Your task to perform on an android device: turn on the 24-hour format for clock Image 0: 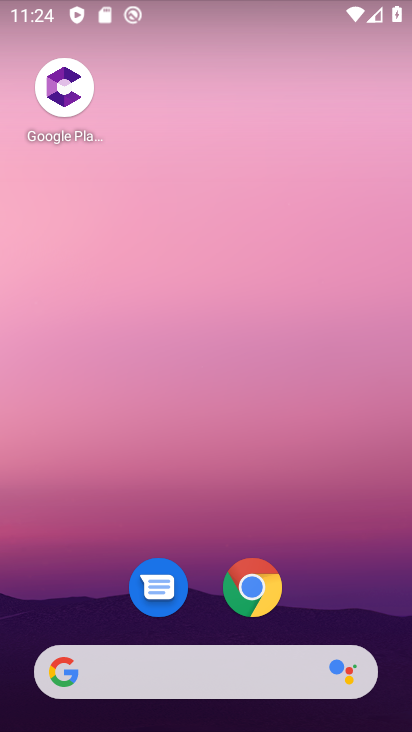
Step 0: drag from (323, 593) to (271, 168)
Your task to perform on an android device: turn on the 24-hour format for clock Image 1: 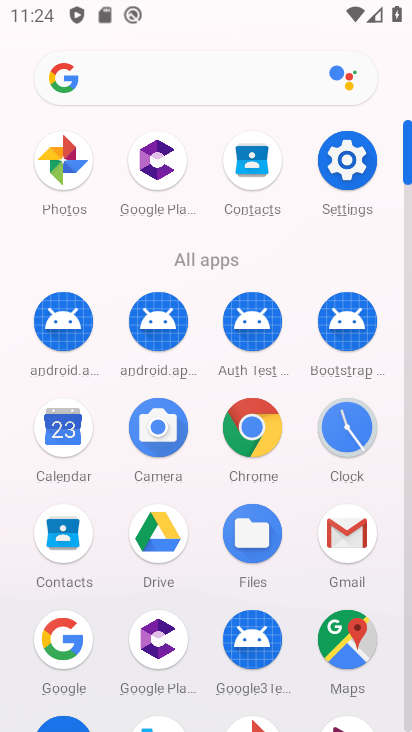
Step 1: click (348, 430)
Your task to perform on an android device: turn on the 24-hour format for clock Image 2: 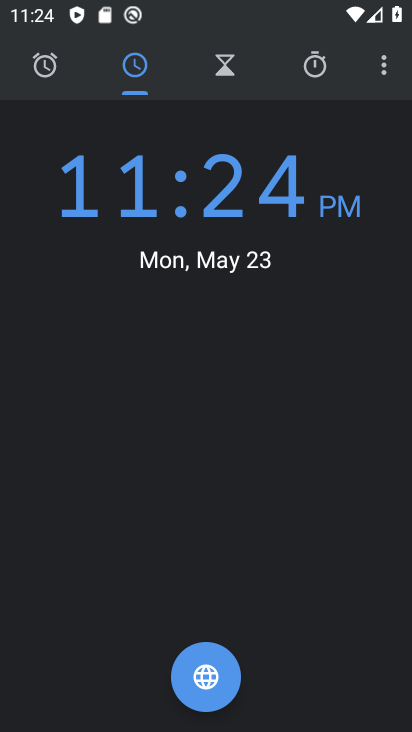
Step 2: click (386, 67)
Your task to perform on an android device: turn on the 24-hour format for clock Image 3: 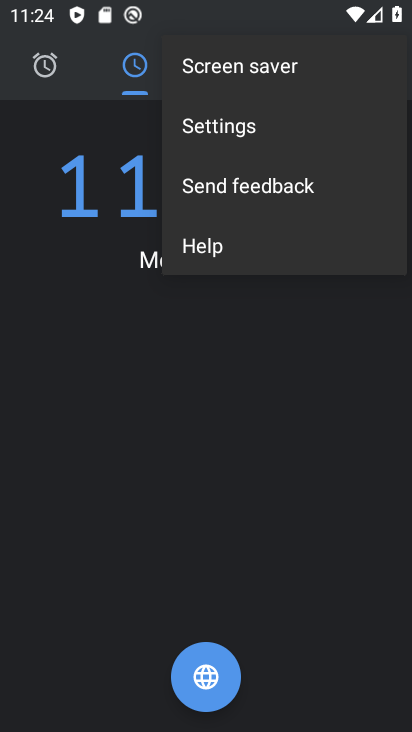
Step 3: click (251, 124)
Your task to perform on an android device: turn on the 24-hour format for clock Image 4: 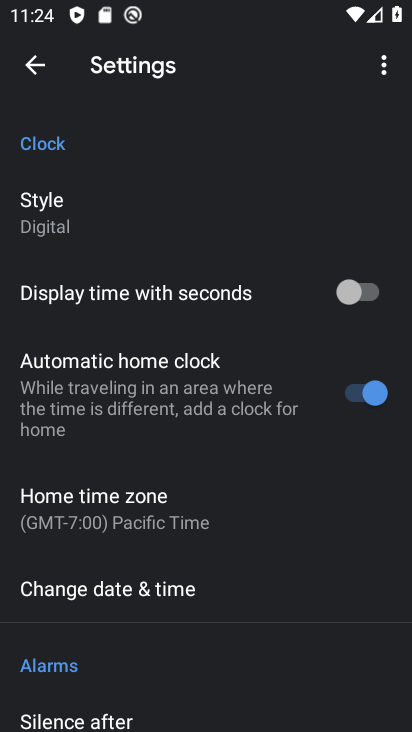
Step 4: drag from (194, 475) to (236, 361)
Your task to perform on an android device: turn on the 24-hour format for clock Image 5: 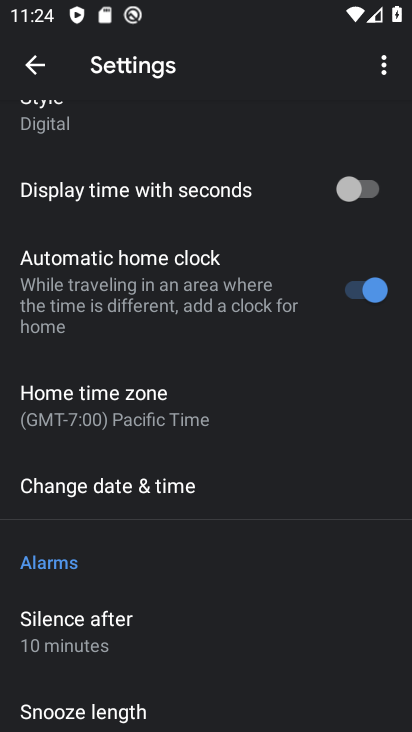
Step 5: drag from (169, 574) to (237, 480)
Your task to perform on an android device: turn on the 24-hour format for clock Image 6: 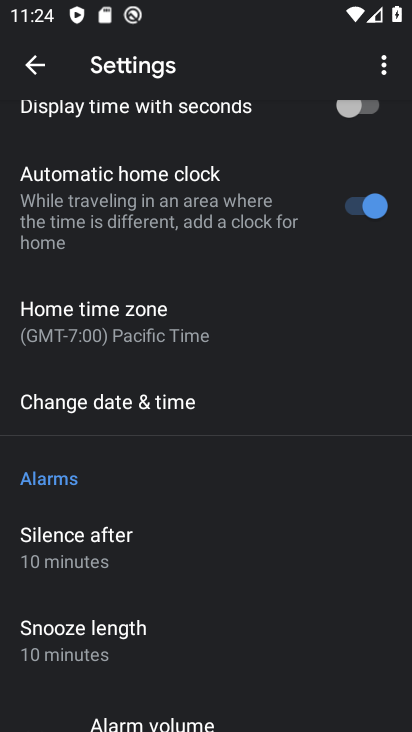
Step 6: click (137, 404)
Your task to perform on an android device: turn on the 24-hour format for clock Image 7: 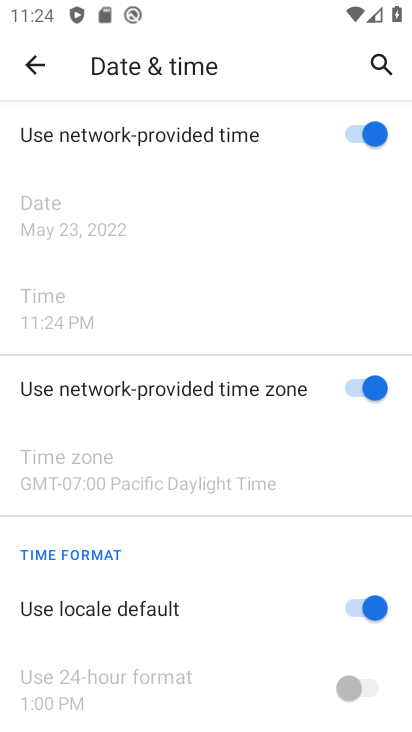
Step 7: drag from (178, 593) to (210, 468)
Your task to perform on an android device: turn on the 24-hour format for clock Image 8: 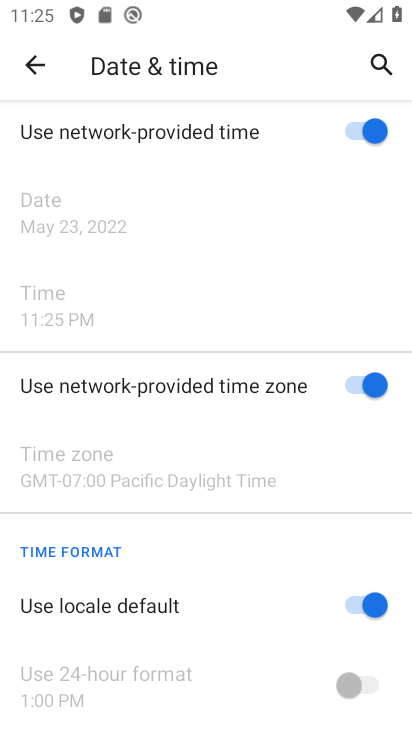
Step 8: click (360, 601)
Your task to perform on an android device: turn on the 24-hour format for clock Image 9: 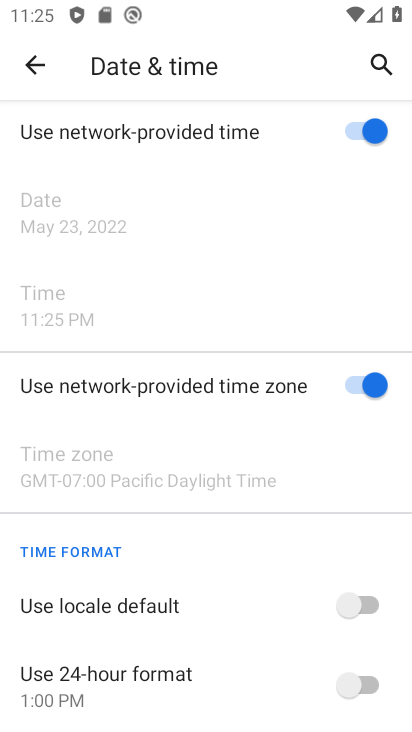
Step 9: click (367, 685)
Your task to perform on an android device: turn on the 24-hour format for clock Image 10: 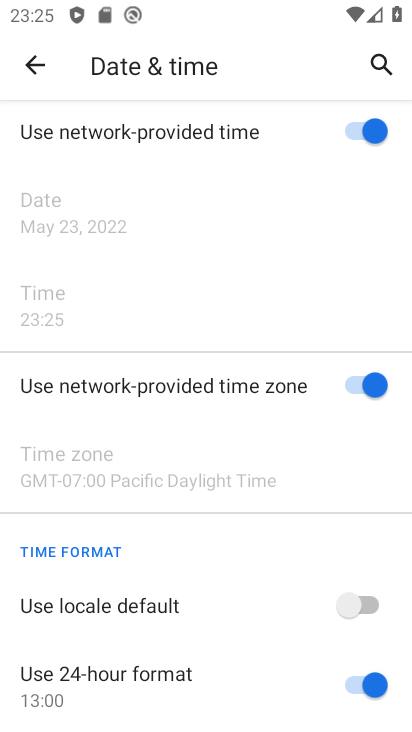
Step 10: task complete